Your task to perform on an android device: toggle translation in the chrome app Image 0: 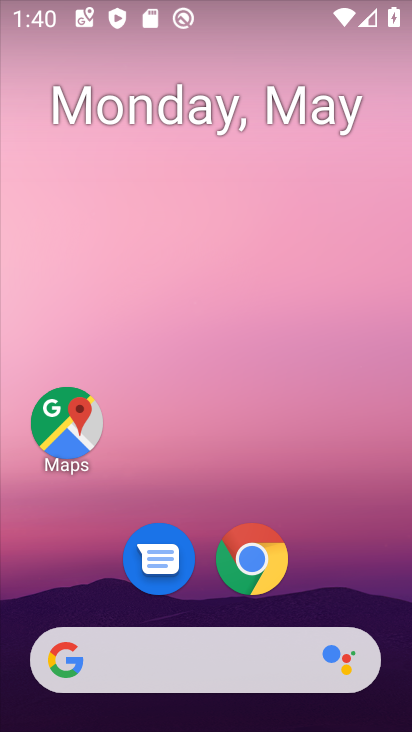
Step 0: drag from (343, 590) to (334, 65)
Your task to perform on an android device: toggle translation in the chrome app Image 1: 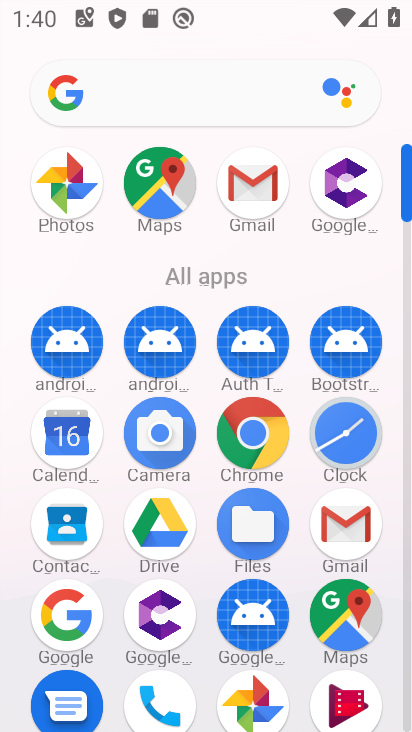
Step 1: click (243, 419)
Your task to perform on an android device: toggle translation in the chrome app Image 2: 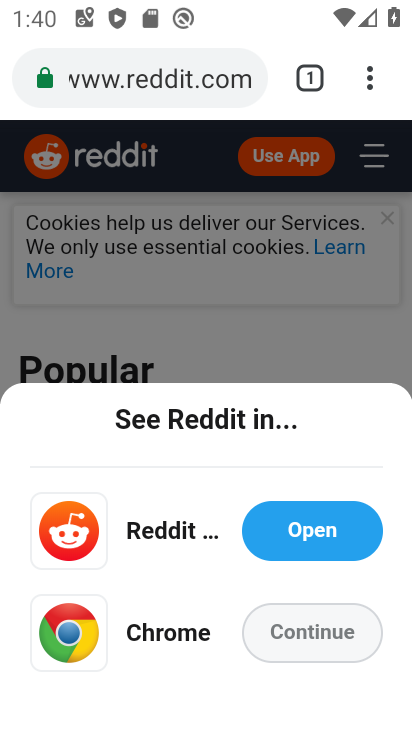
Step 2: click (348, 221)
Your task to perform on an android device: toggle translation in the chrome app Image 3: 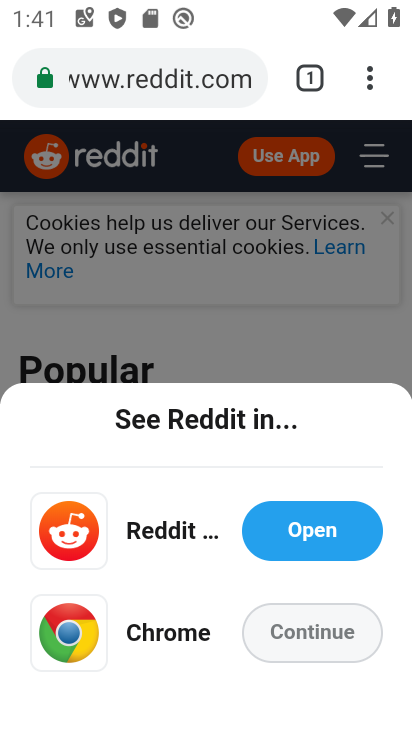
Step 3: click (161, 88)
Your task to perform on an android device: toggle translation in the chrome app Image 4: 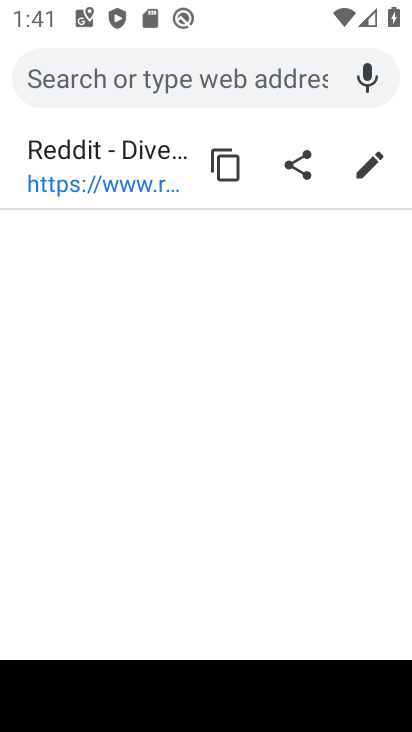
Step 4: click (158, 81)
Your task to perform on an android device: toggle translation in the chrome app Image 5: 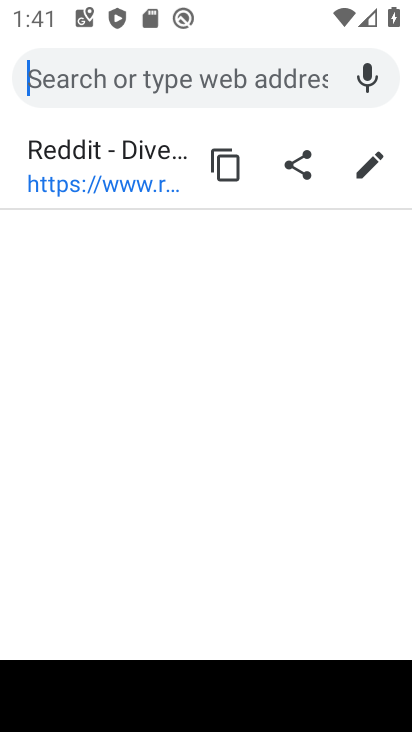
Step 5: click (190, 452)
Your task to perform on an android device: toggle translation in the chrome app Image 6: 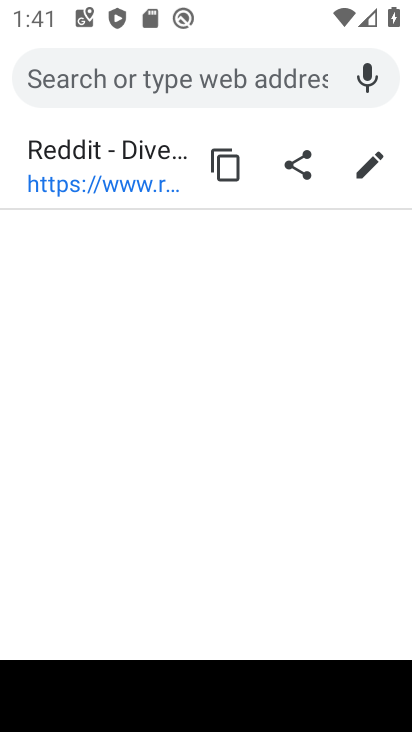
Step 6: press back button
Your task to perform on an android device: toggle translation in the chrome app Image 7: 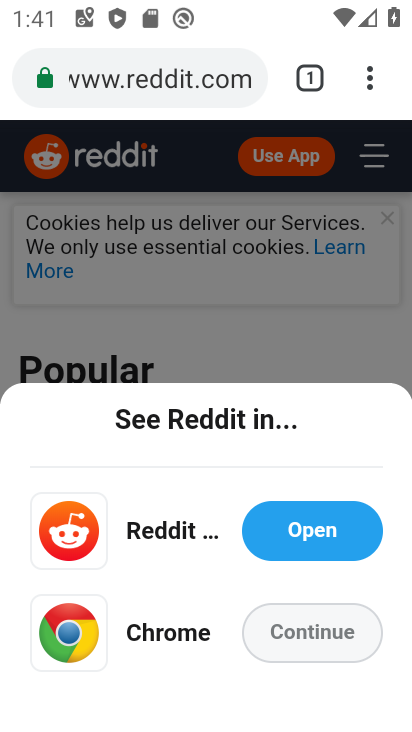
Step 7: click (357, 328)
Your task to perform on an android device: toggle translation in the chrome app Image 8: 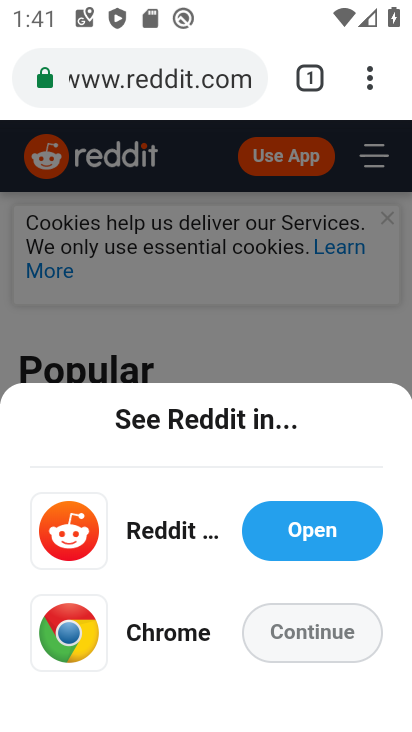
Step 8: click (357, 328)
Your task to perform on an android device: toggle translation in the chrome app Image 9: 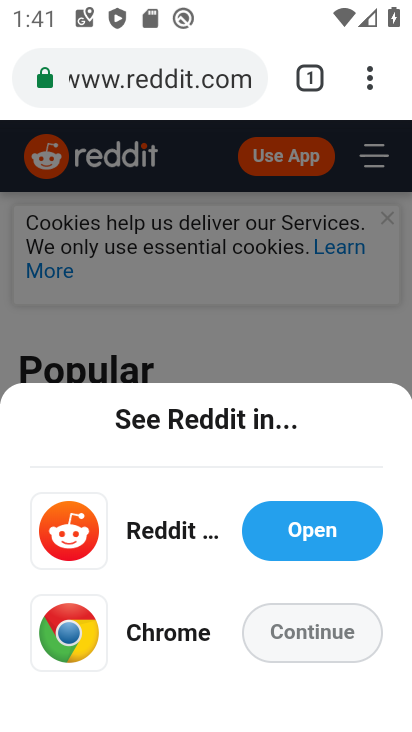
Step 9: click (246, 284)
Your task to perform on an android device: toggle translation in the chrome app Image 10: 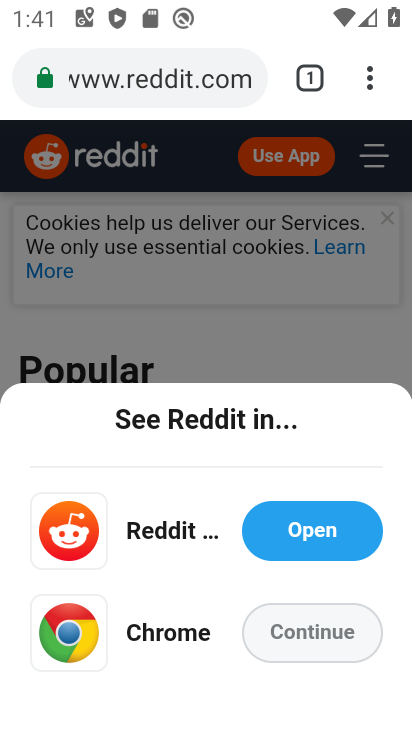
Step 10: click (325, 281)
Your task to perform on an android device: toggle translation in the chrome app Image 11: 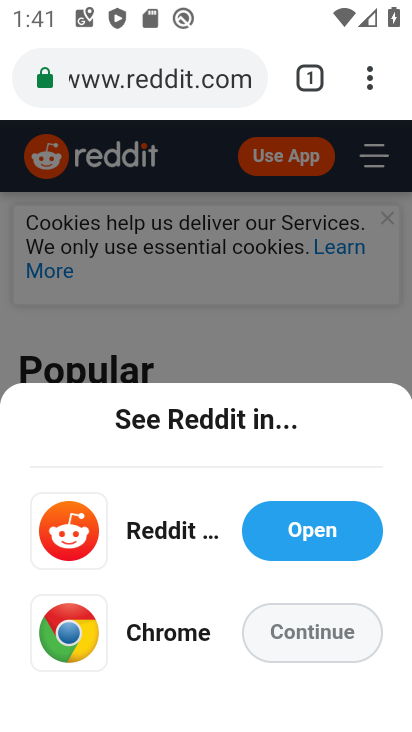
Step 11: click (365, 317)
Your task to perform on an android device: toggle translation in the chrome app Image 12: 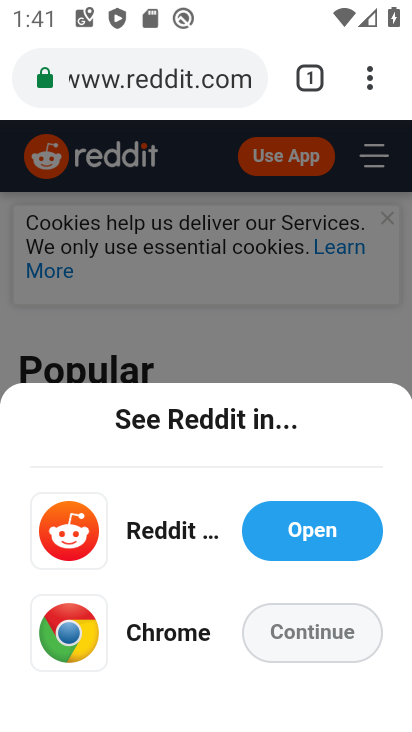
Step 12: click (390, 316)
Your task to perform on an android device: toggle translation in the chrome app Image 13: 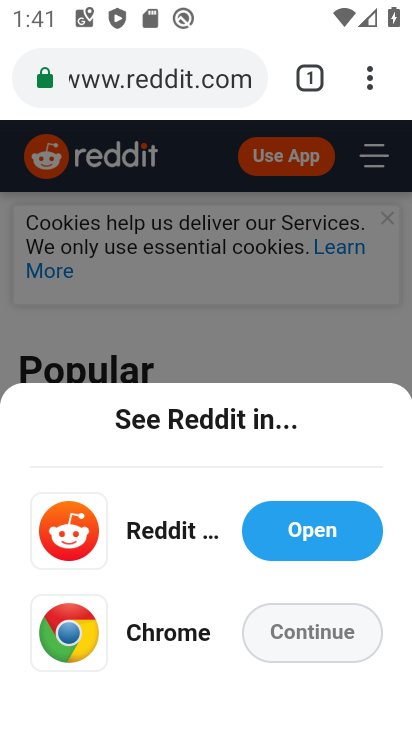
Step 13: click (387, 320)
Your task to perform on an android device: toggle translation in the chrome app Image 14: 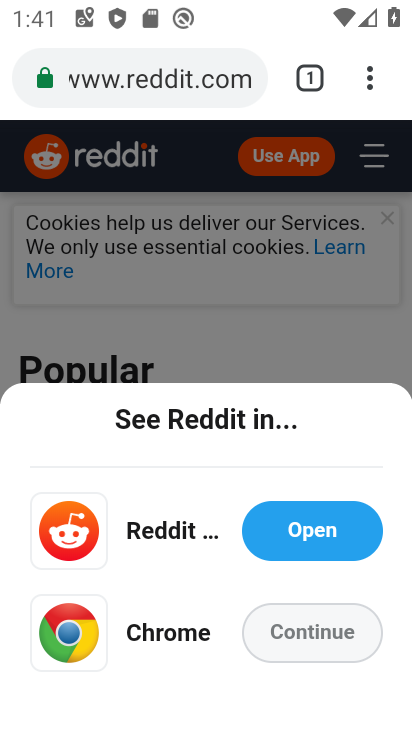
Step 14: drag from (376, 87) to (117, 632)
Your task to perform on an android device: toggle translation in the chrome app Image 15: 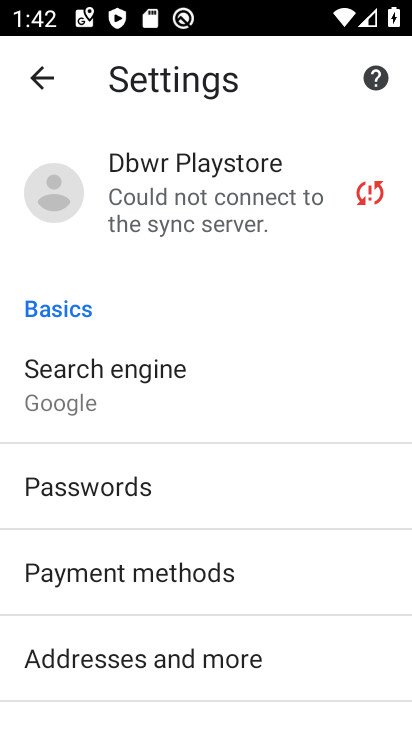
Step 15: drag from (339, 584) to (135, 110)
Your task to perform on an android device: toggle translation in the chrome app Image 16: 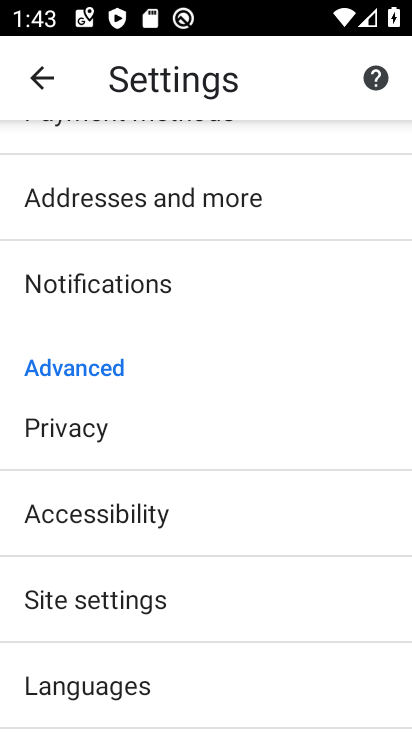
Step 16: click (151, 705)
Your task to perform on an android device: toggle translation in the chrome app Image 17: 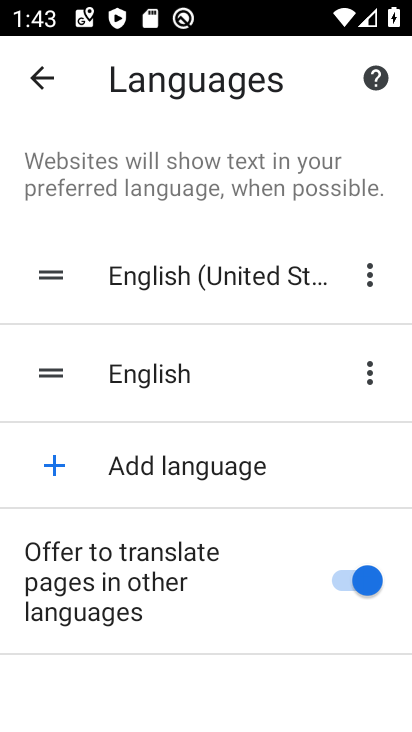
Step 17: click (310, 594)
Your task to perform on an android device: toggle translation in the chrome app Image 18: 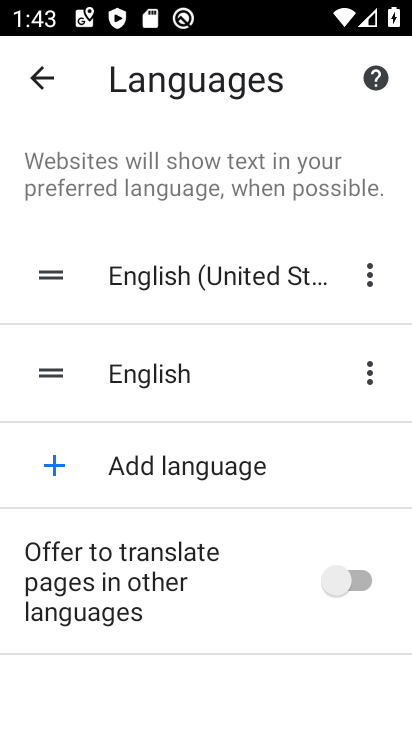
Step 18: task complete